Your task to perform on an android device: set the timer Image 0: 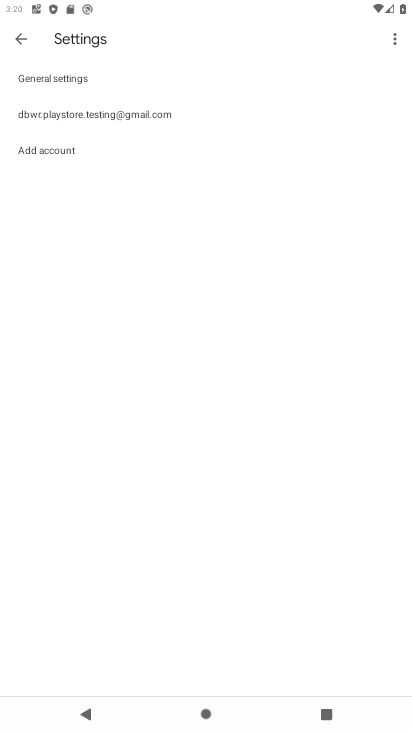
Step 0: press home button
Your task to perform on an android device: set the timer Image 1: 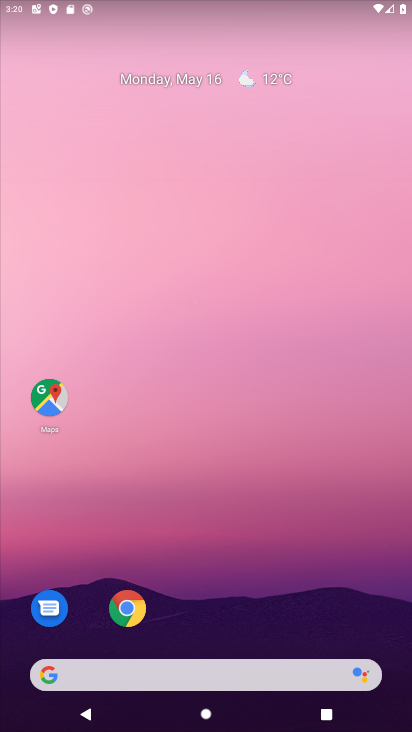
Step 1: drag from (164, 629) to (148, 259)
Your task to perform on an android device: set the timer Image 2: 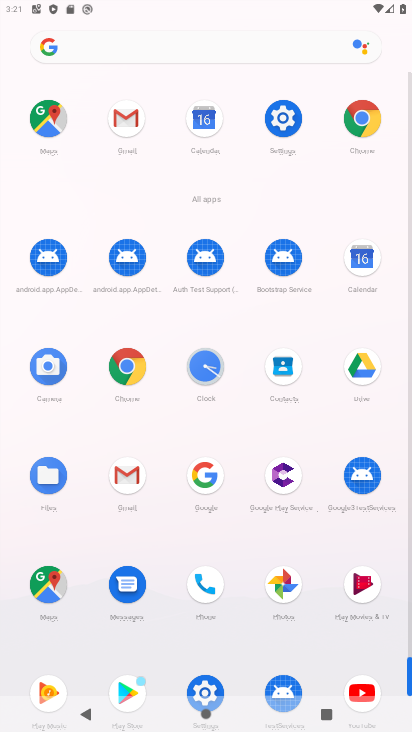
Step 2: click (203, 360)
Your task to perform on an android device: set the timer Image 3: 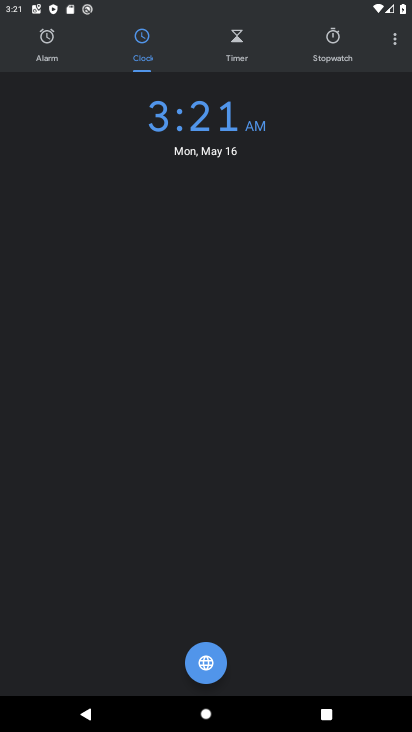
Step 3: click (240, 54)
Your task to perform on an android device: set the timer Image 4: 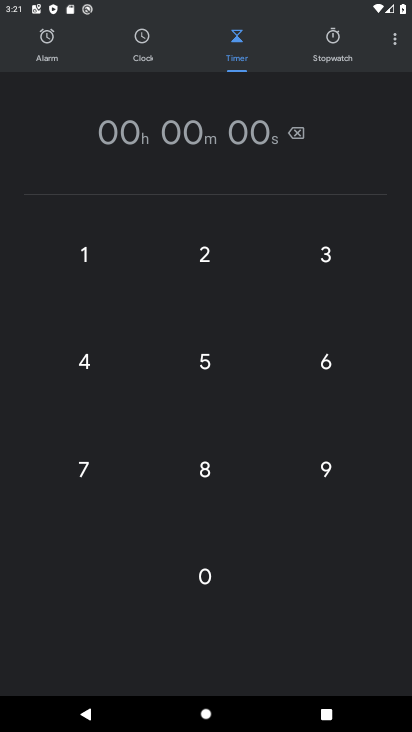
Step 4: click (206, 362)
Your task to perform on an android device: set the timer Image 5: 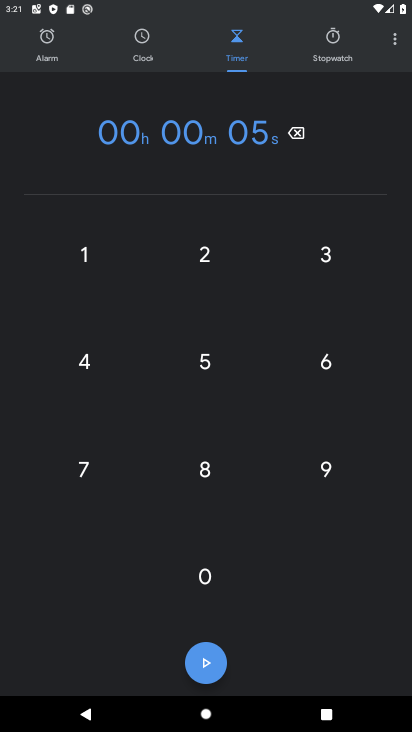
Step 5: click (214, 357)
Your task to perform on an android device: set the timer Image 6: 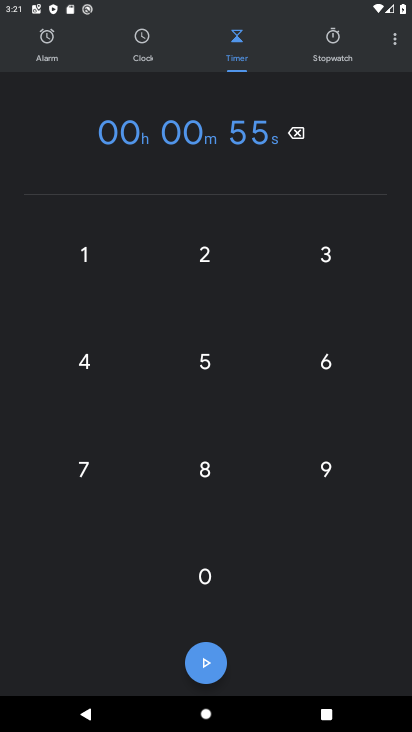
Step 6: task complete